Your task to perform on an android device: open chrome privacy settings Image 0: 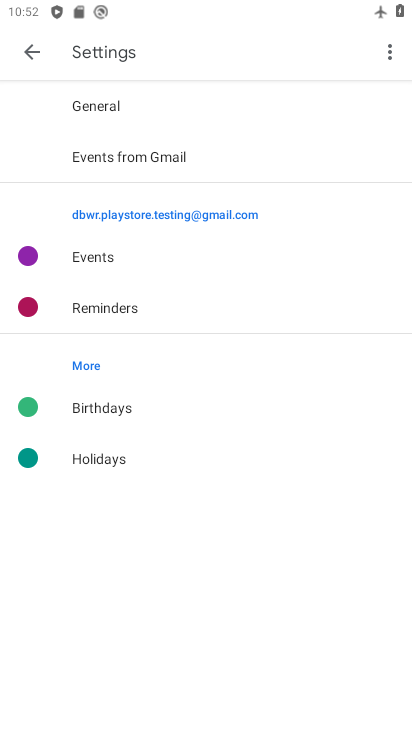
Step 0: press home button
Your task to perform on an android device: open chrome privacy settings Image 1: 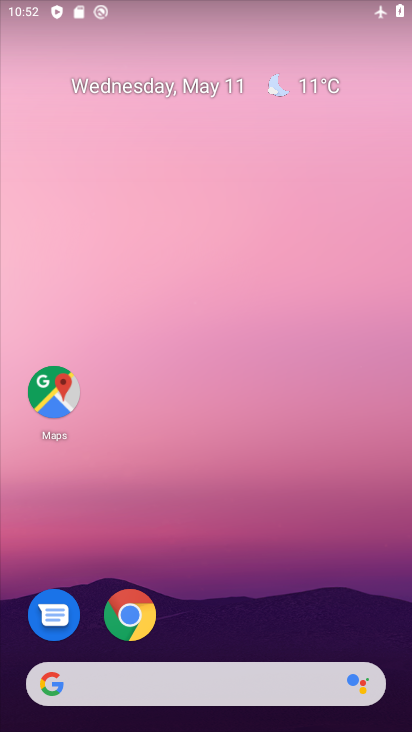
Step 1: click (130, 622)
Your task to perform on an android device: open chrome privacy settings Image 2: 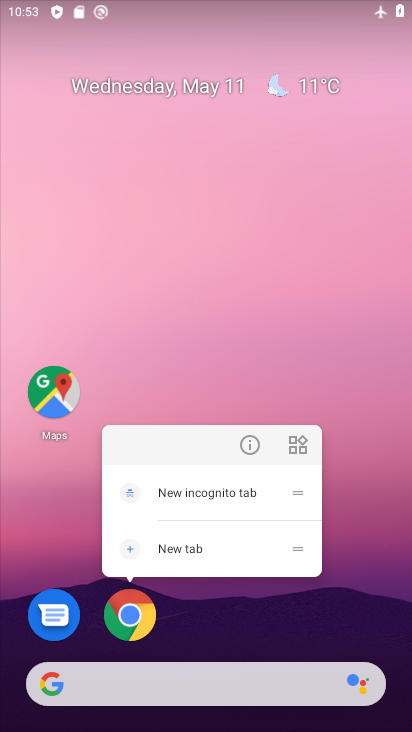
Step 2: click (126, 612)
Your task to perform on an android device: open chrome privacy settings Image 3: 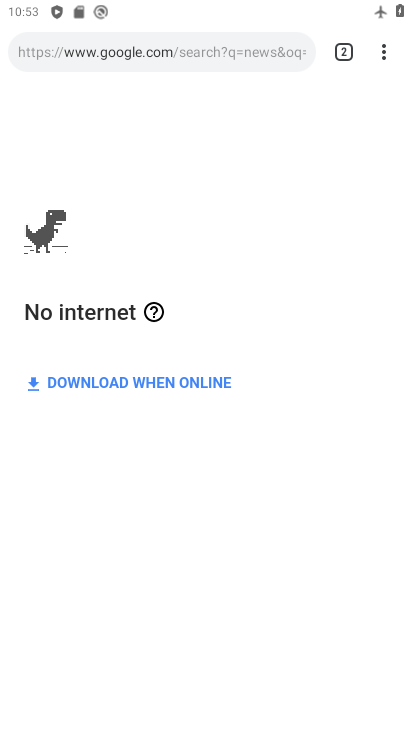
Step 3: click (385, 52)
Your task to perform on an android device: open chrome privacy settings Image 4: 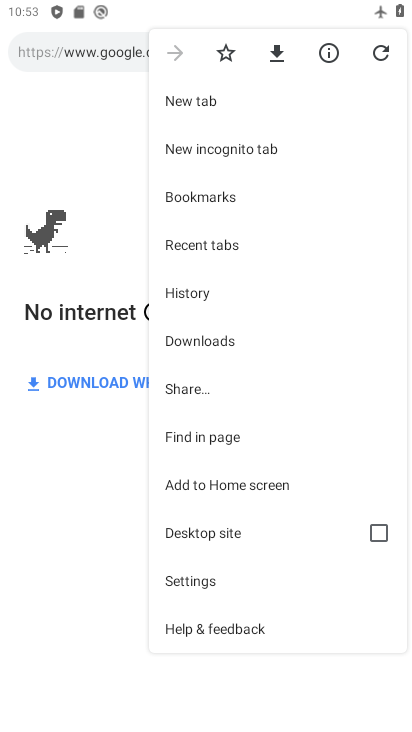
Step 4: click (209, 581)
Your task to perform on an android device: open chrome privacy settings Image 5: 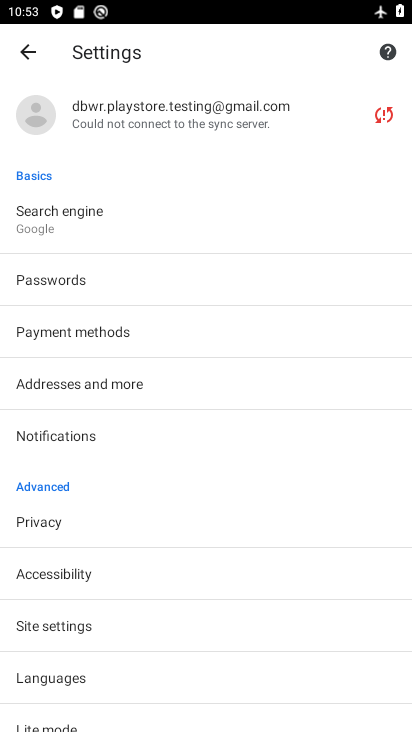
Step 5: drag from (124, 641) to (173, 161)
Your task to perform on an android device: open chrome privacy settings Image 6: 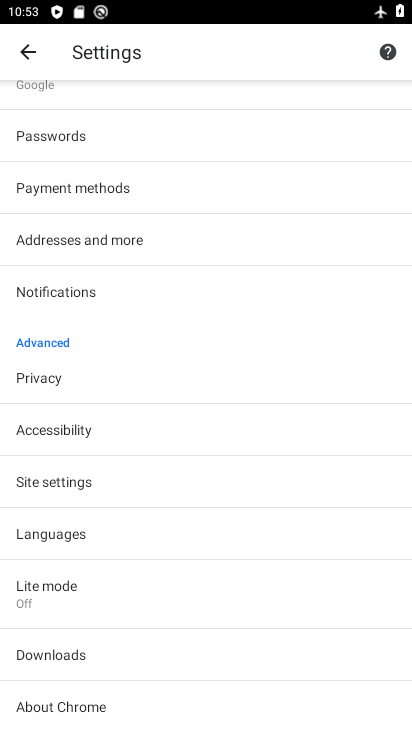
Step 6: click (47, 377)
Your task to perform on an android device: open chrome privacy settings Image 7: 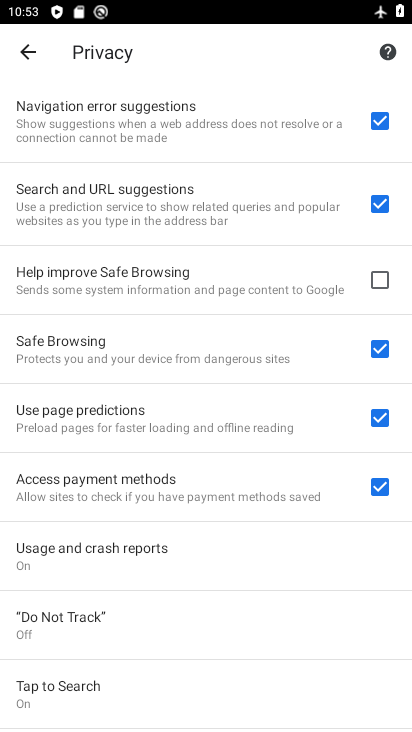
Step 7: task complete